Your task to perform on an android device: Show me popular videos on Youtube Image 0: 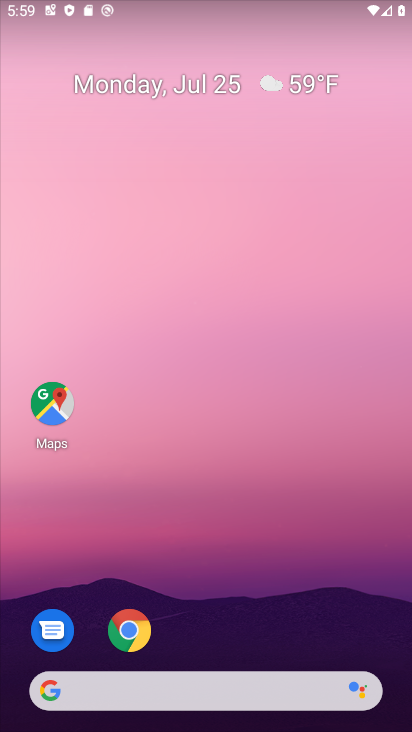
Step 0: drag from (199, 643) to (256, 139)
Your task to perform on an android device: Show me popular videos on Youtube Image 1: 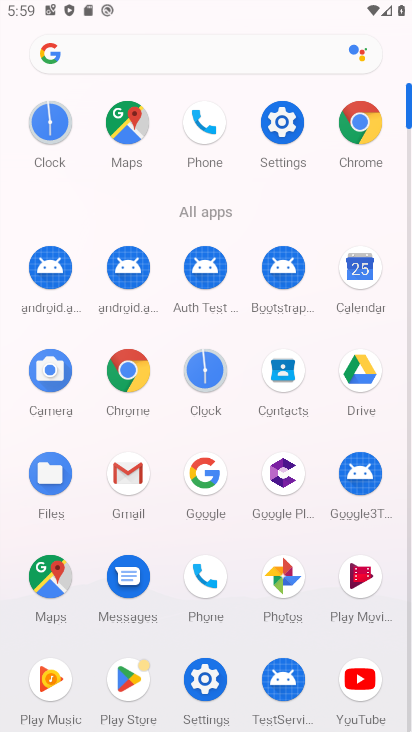
Step 1: drag from (304, 638) to (331, 487)
Your task to perform on an android device: Show me popular videos on Youtube Image 2: 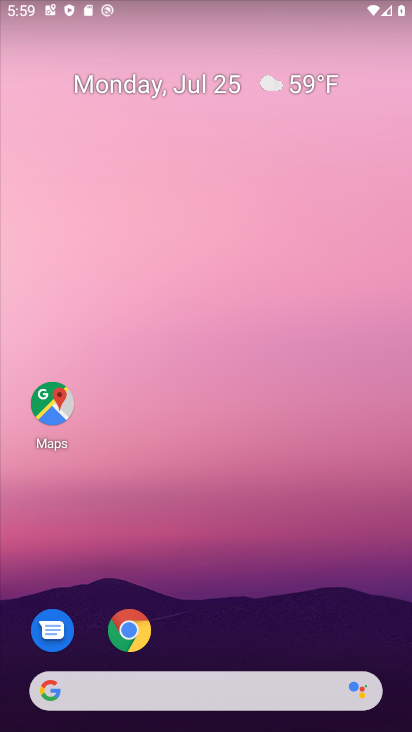
Step 2: drag from (191, 473) to (259, 123)
Your task to perform on an android device: Show me popular videos on Youtube Image 3: 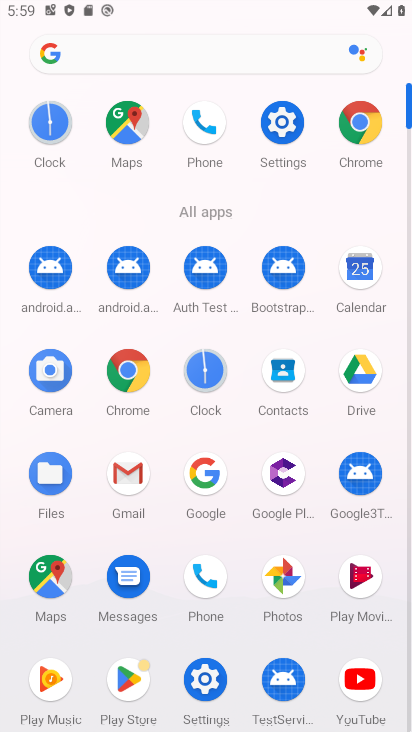
Step 3: click (360, 690)
Your task to perform on an android device: Show me popular videos on Youtube Image 4: 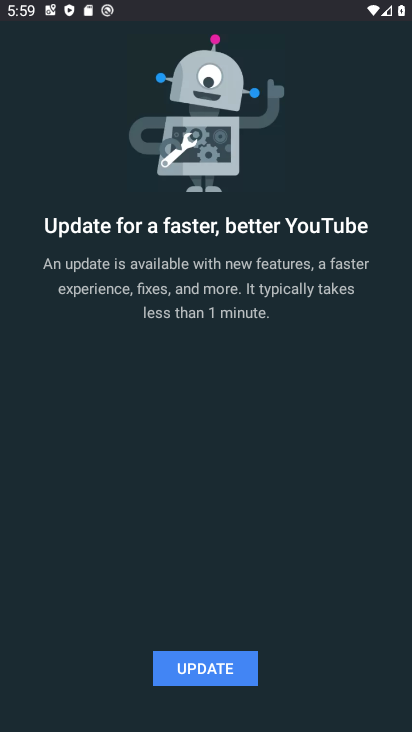
Step 4: click (231, 660)
Your task to perform on an android device: Show me popular videos on Youtube Image 5: 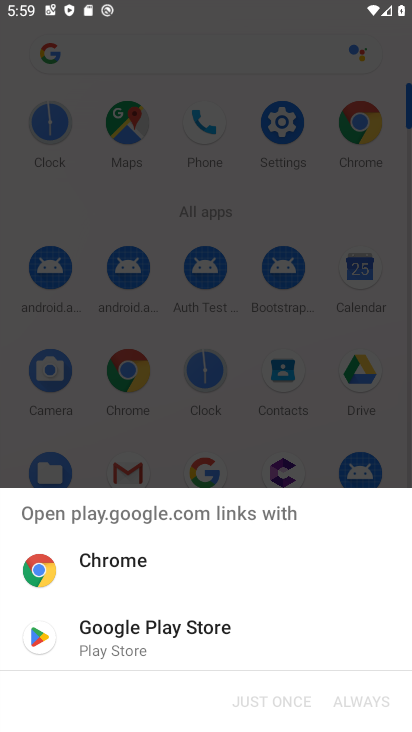
Step 5: click (187, 628)
Your task to perform on an android device: Show me popular videos on Youtube Image 6: 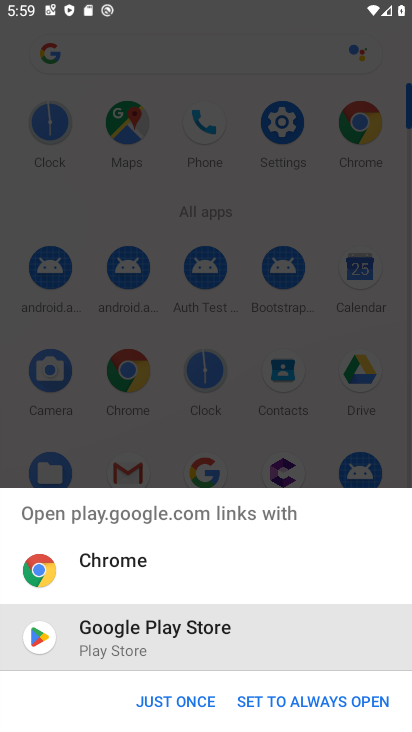
Step 6: click (270, 702)
Your task to perform on an android device: Show me popular videos on Youtube Image 7: 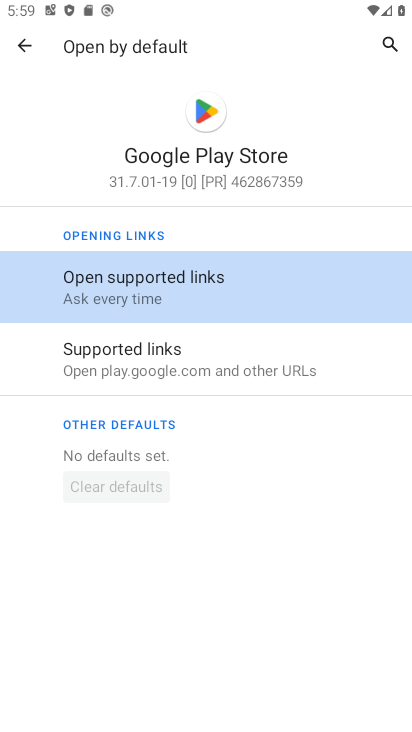
Step 7: click (164, 282)
Your task to perform on an android device: Show me popular videos on Youtube Image 8: 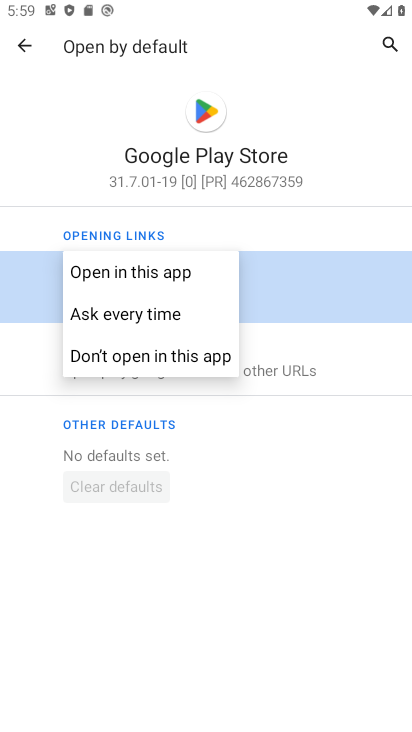
Step 8: click (134, 269)
Your task to perform on an android device: Show me popular videos on Youtube Image 9: 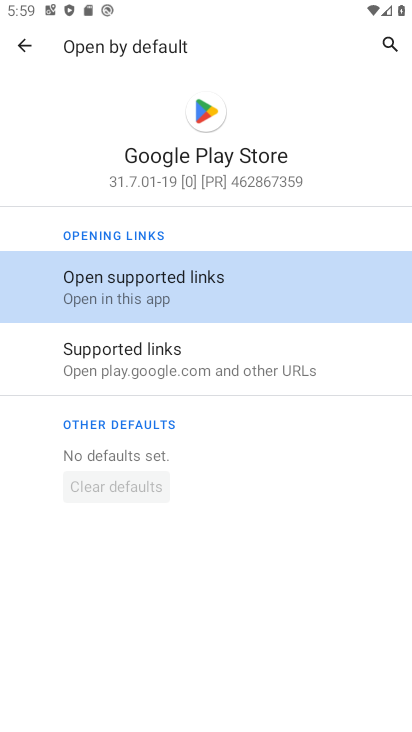
Step 9: click (22, 50)
Your task to perform on an android device: Show me popular videos on Youtube Image 10: 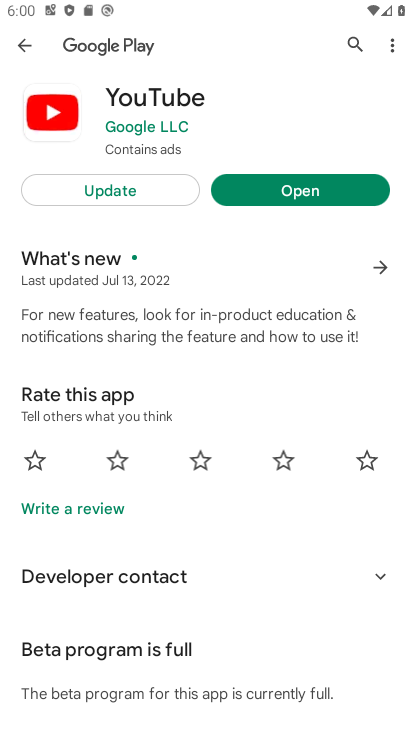
Step 10: click (90, 188)
Your task to perform on an android device: Show me popular videos on Youtube Image 11: 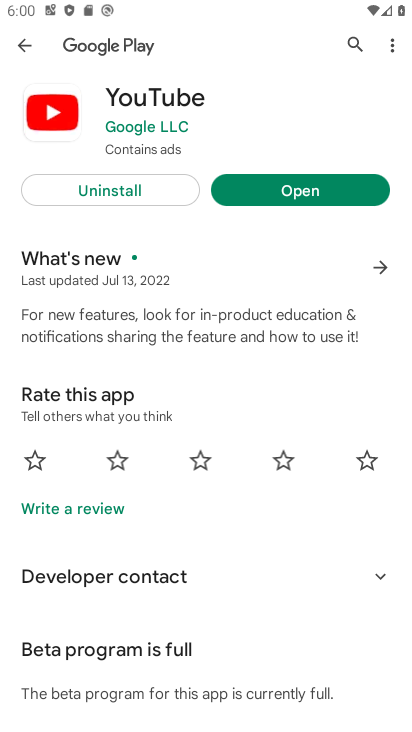
Step 11: click (298, 189)
Your task to perform on an android device: Show me popular videos on Youtube Image 12: 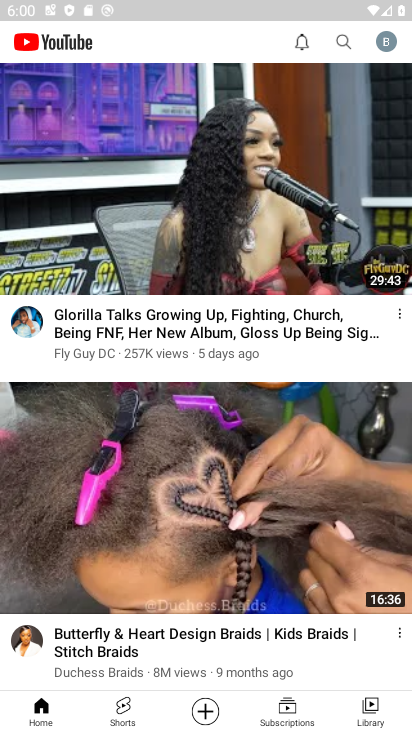
Step 12: task complete